Your task to perform on an android device: empty trash in google photos Image 0: 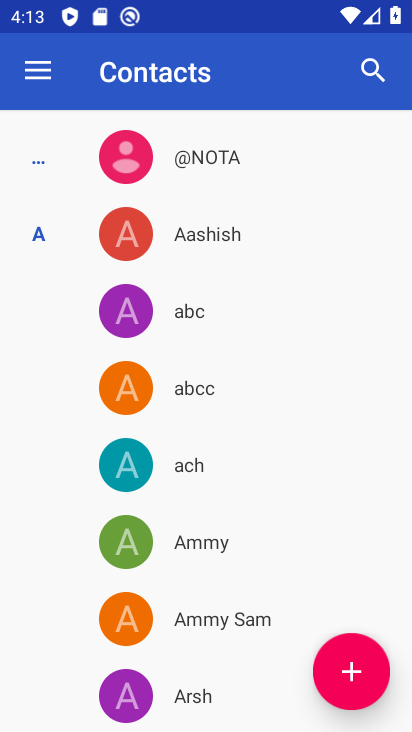
Step 0: press home button
Your task to perform on an android device: empty trash in google photos Image 1: 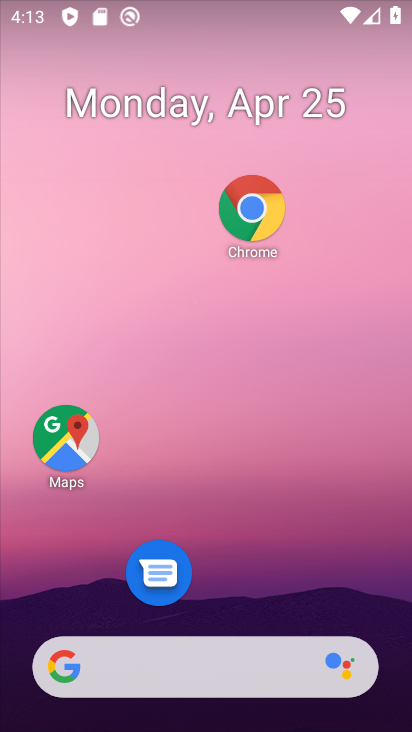
Step 1: drag from (230, 592) to (189, 110)
Your task to perform on an android device: empty trash in google photos Image 2: 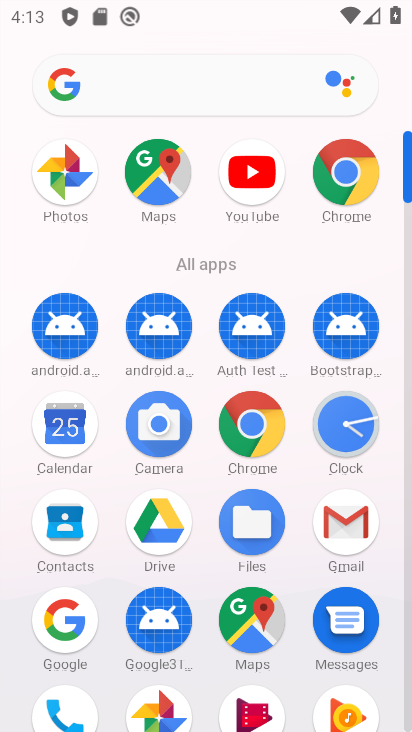
Step 2: click (79, 190)
Your task to perform on an android device: empty trash in google photos Image 3: 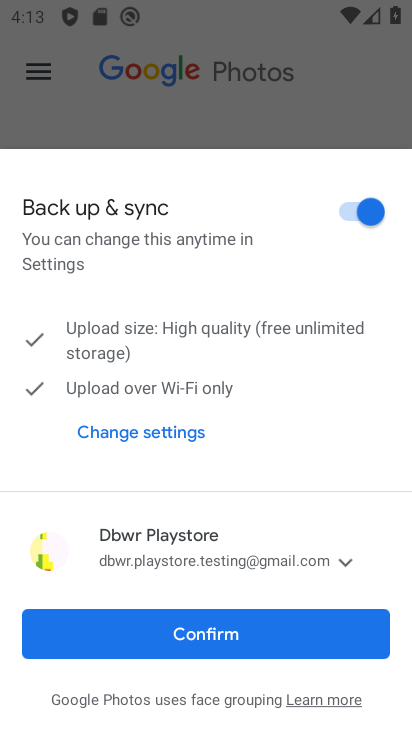
Step 3: click (186, 615)
Your task to perform on an android device: empty trash in google photos Image 4: 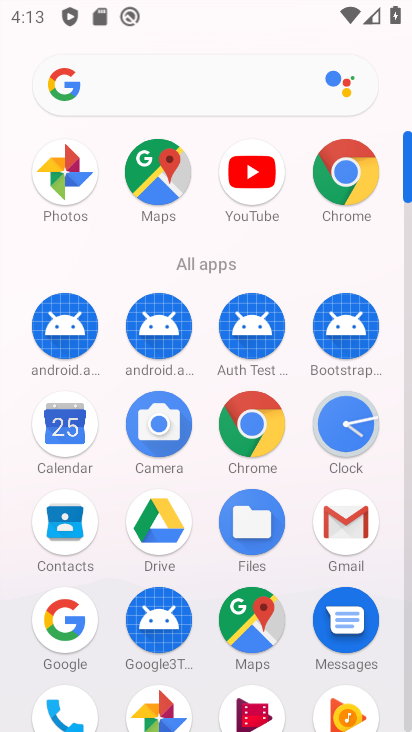
Step 4: click (46, 171)
Your task to perform on an android device: empty trash in google photos Image 5: 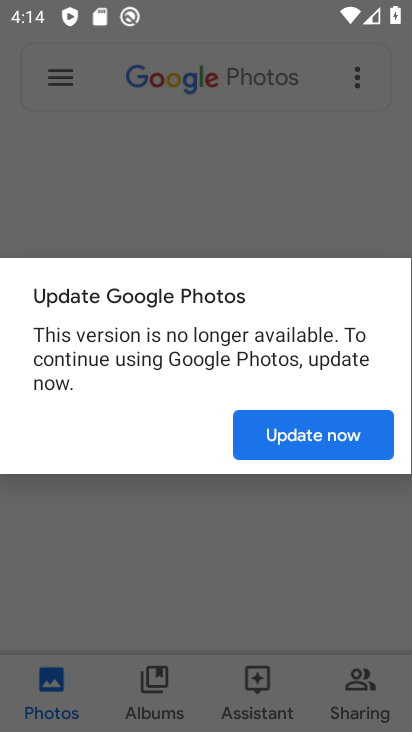
Step 5: click (271, 433)
Your task to perform on an android device: empty trash in google photos Image 6: 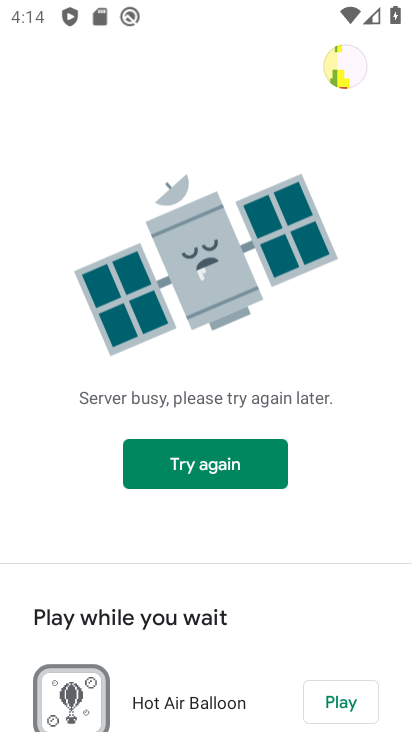
Step 6: press back button
Your task to perform on an android device: empty trash in google photos Image 7: 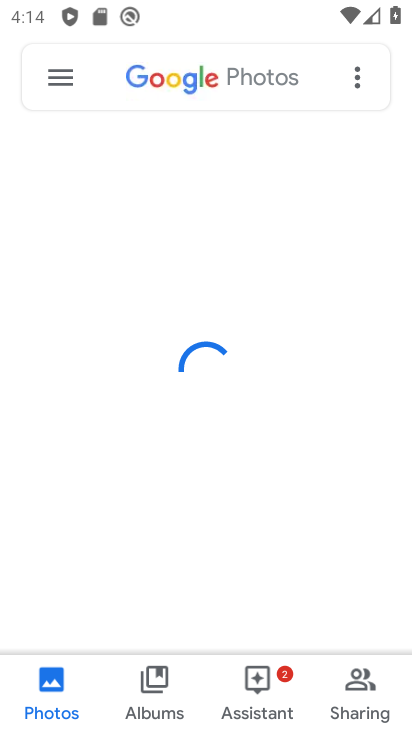
Step 7: click (59, 80)
Your task to perform on an android device: empty trash in google photos Image 8: 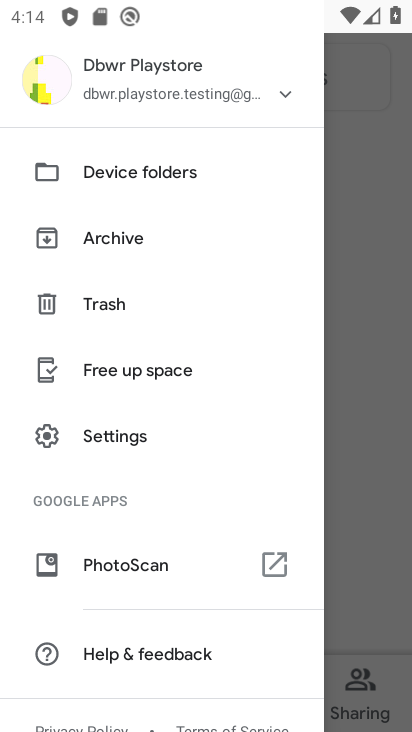
Step 8: click (132, 305)
Your task to perform on an android device: empty trash in google photos Image 9: 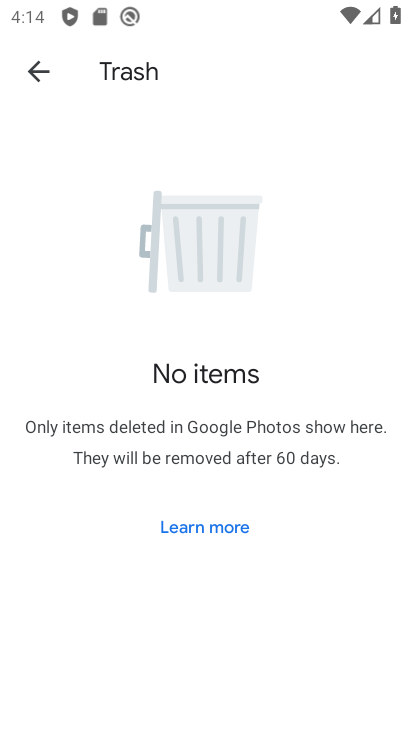
Step 9: task complete